Your task to perform on an android device: Go to battery settings Image 0: 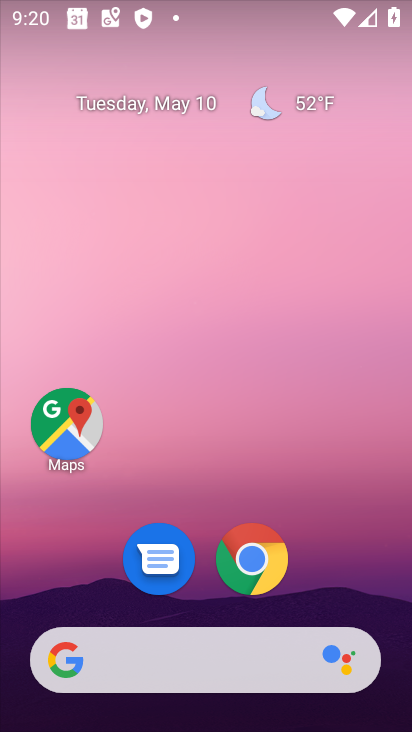
Step 0: drag from (322, 510) to (255, 4)
Your task to perform on an android device: Go to battery settings Image 1: 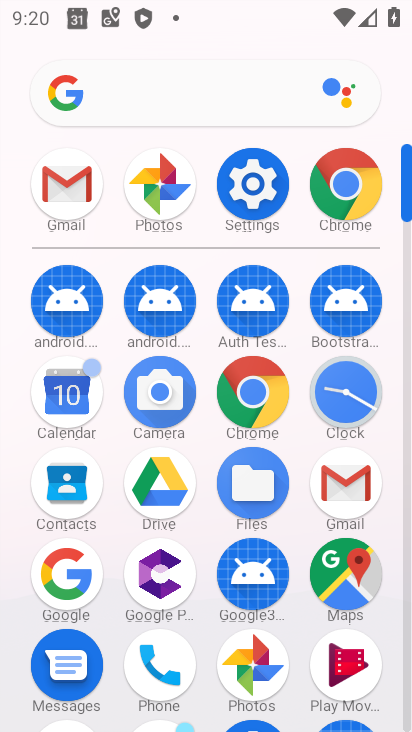
Step 1: drag from (17, 568) to (1, 231)
Your task to perform on an android device: Go to battery settings Image 2: 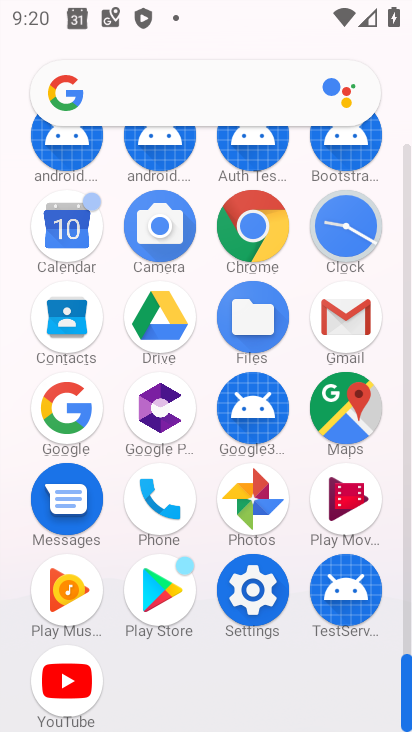
Step 2: click (256, 587)
Your task to perform on an android device: Go to battery settings Image 3: 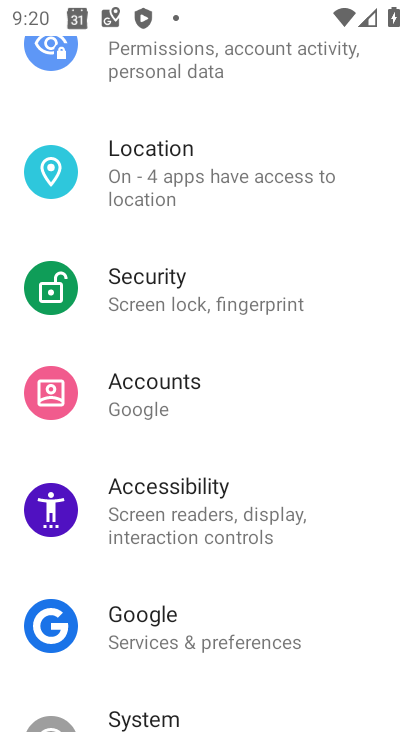
Step 3: drag from (255, 164) to (280, 611)
Your task to perform on an android device: Go to battery settings Image 4: 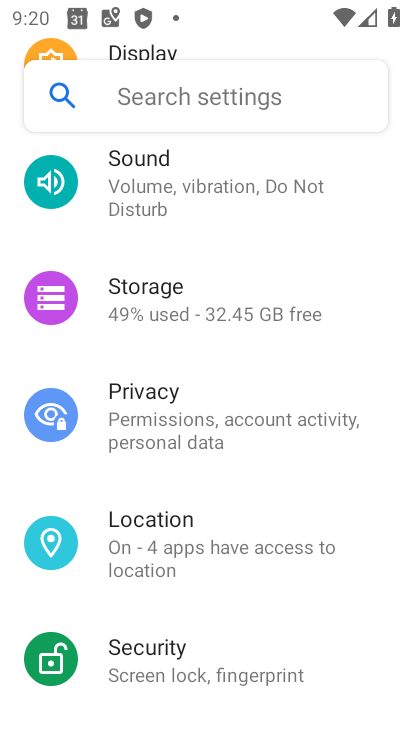
Step 4: drag from (283, 241) to (231, 594)
Your task to perform on an android device: Go to battery settings Image 5: 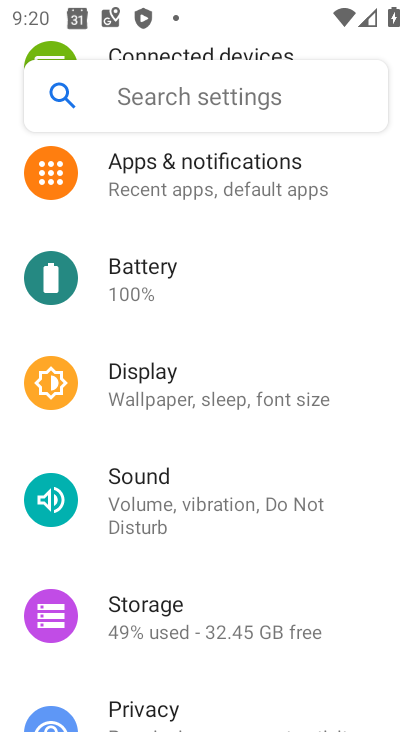
Step 5: click (189, 273)
Your task to perform on an android device: Go to battery settings Image 6: 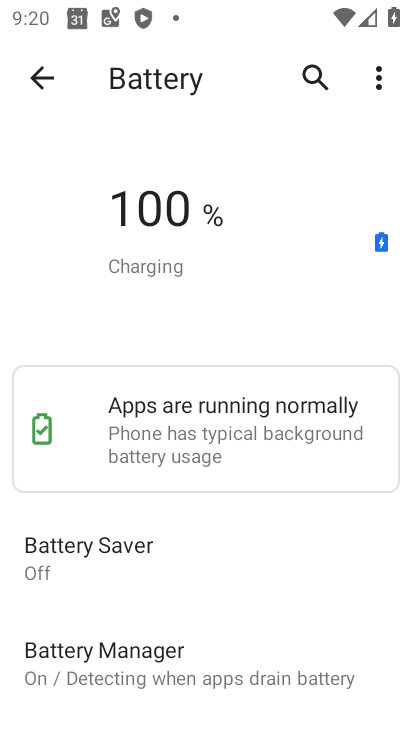
Step 6: task complete